Your task to perform on an android device: set default search engine in the chrome app Image 0: 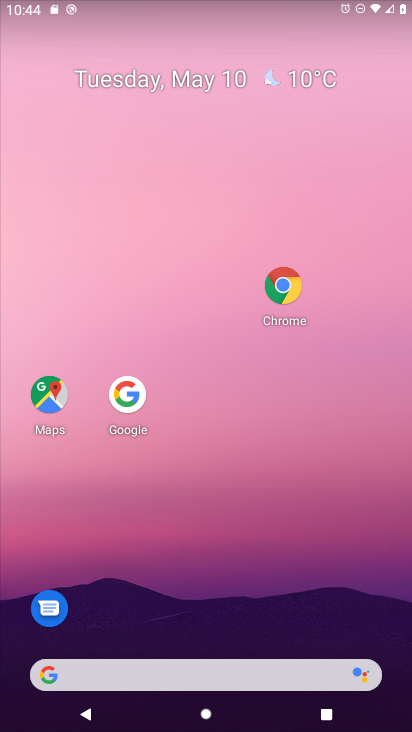
Step 0: drag from (155, 679) to (287, 213)
Your task to perform on an android device: set default search engine in the chrome app Image 1: 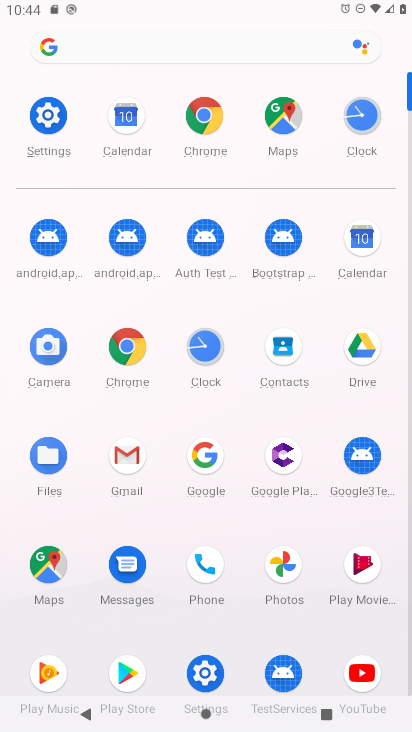
Step 1: click (201, 120)
Your task to perform on an android device: set default search engine in the chrome app Image 2: 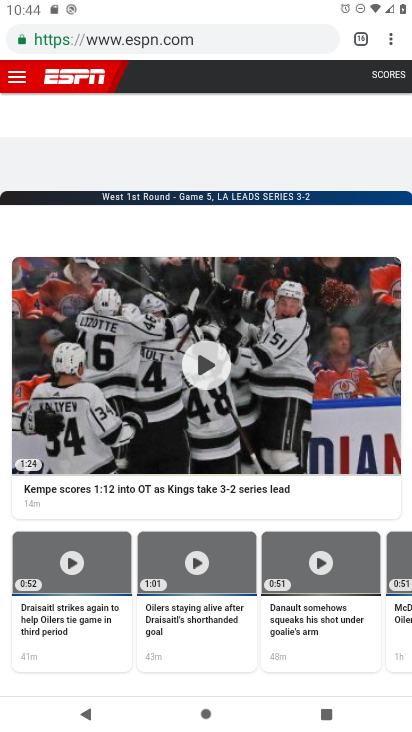
Step 2: drag from (390, 35) to (275, 469)
Your task to perform on an android device: set default search engine in the chrome app Image 3: 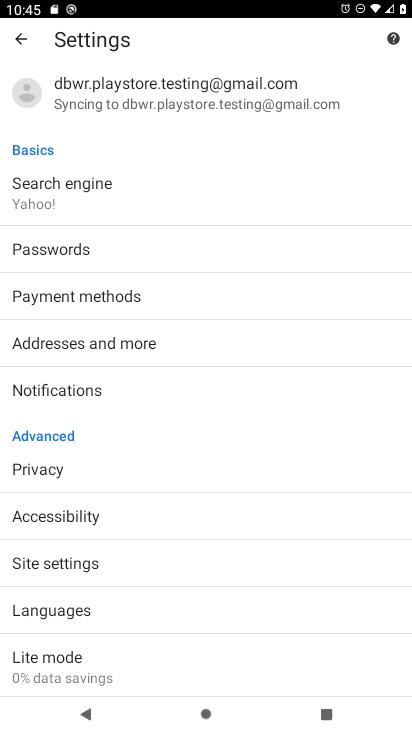
Step 3: click (74, 196)
Your task to perform on an android device: set default search engine in the chrome app Image 4: 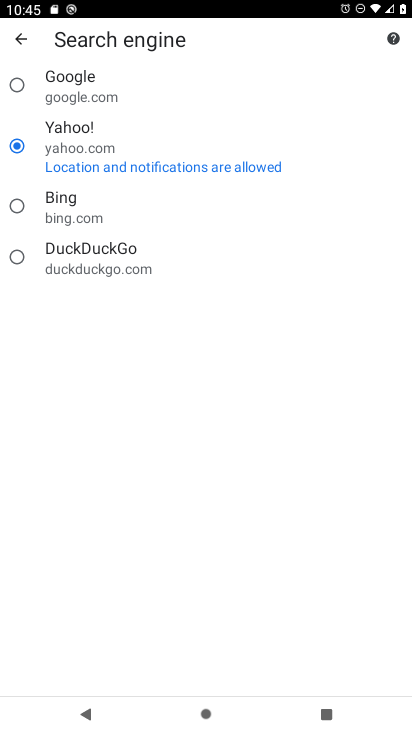
Step 4: click (23, 89)
Your task to perform on an android device: set default search engine in the chrome app Image 5: 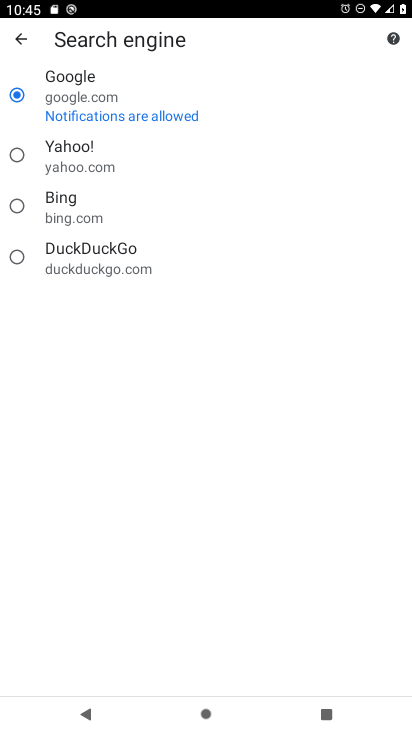
Step 5: task complete